Your task to perform on an android device: check android version Image 0: 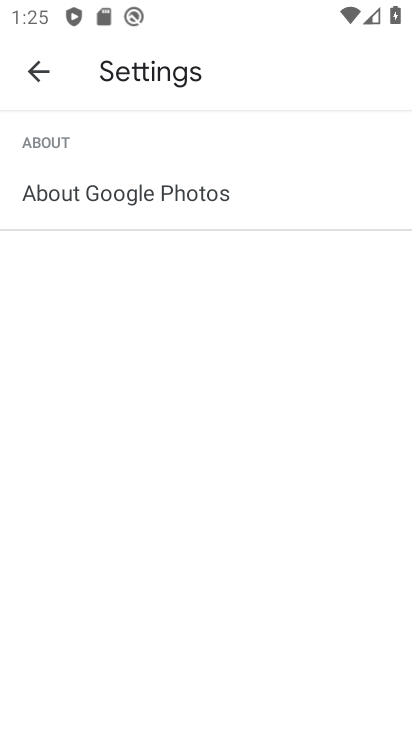
Step 0: press home button
Your task to perform on an android device: check android version Image 1: 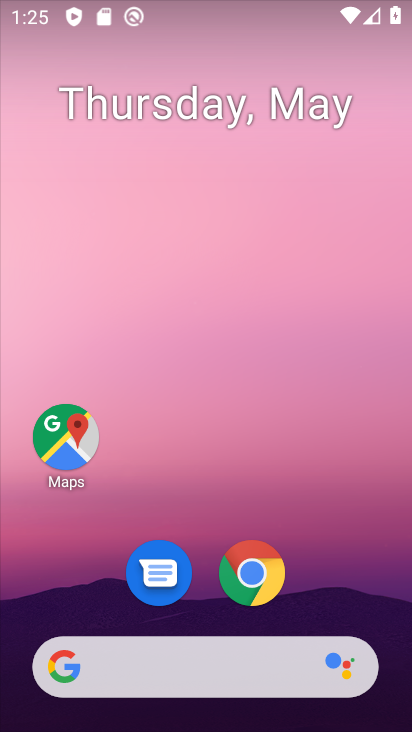
Step 1: drag from (387, 602) to (309, 7)
Your task to perform on an android device: check android version Image 2: 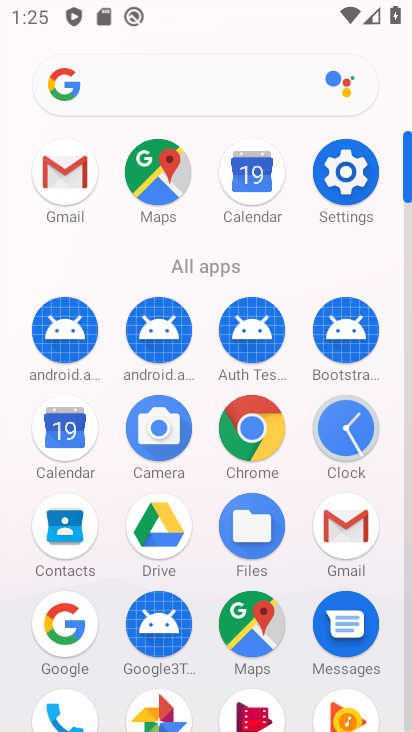
Step 2: click (317, 177)
Your task to perform on an android device: check android version Image 3: 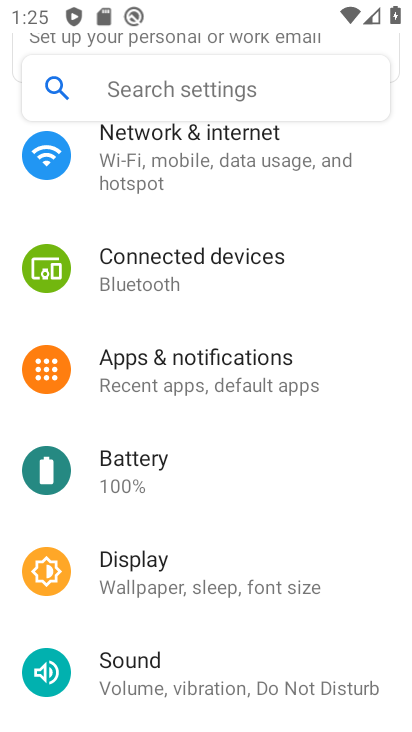
Step 3: drag from (266, 563) to (283, 177)
Your task to perform on an android device: check android version Image 4: 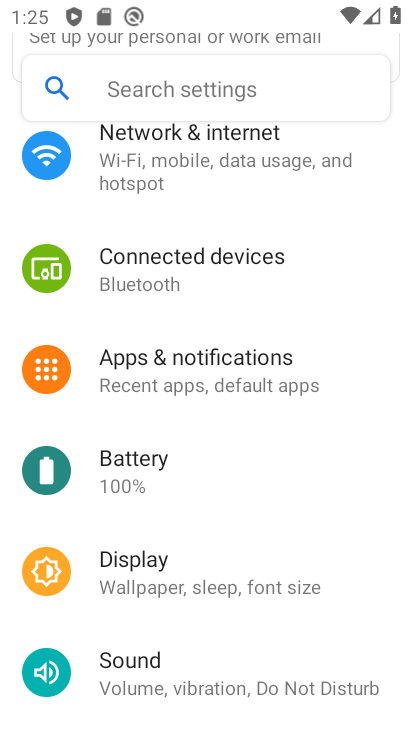
Step 4: drag from (232, 585) to (275, 237)
Your task to perform on an android device: check android version Image 5: 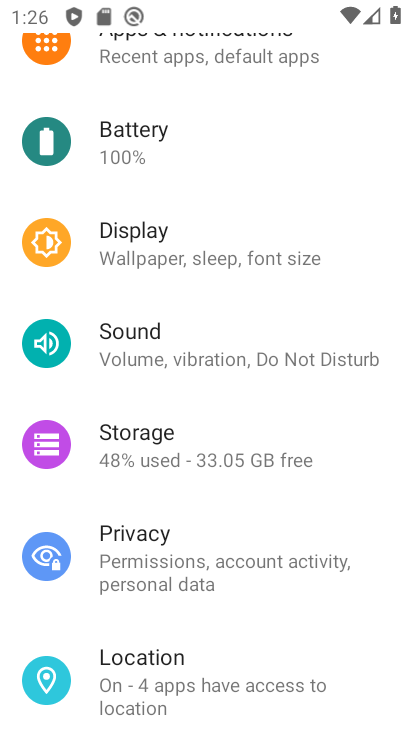
Step 5: drag from (274, 467) to (297, 258)
Your task to perform on an android device: check android version Image 6: 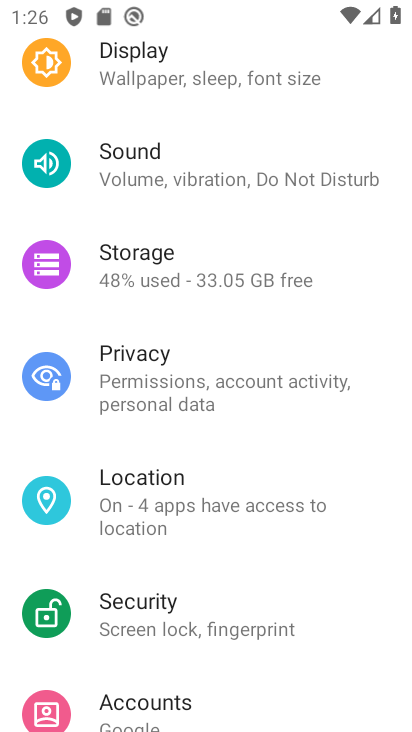
Step 6: drag from (282, 491) to (278, 273)
Your task to perform on an android device: check android version Image 7: 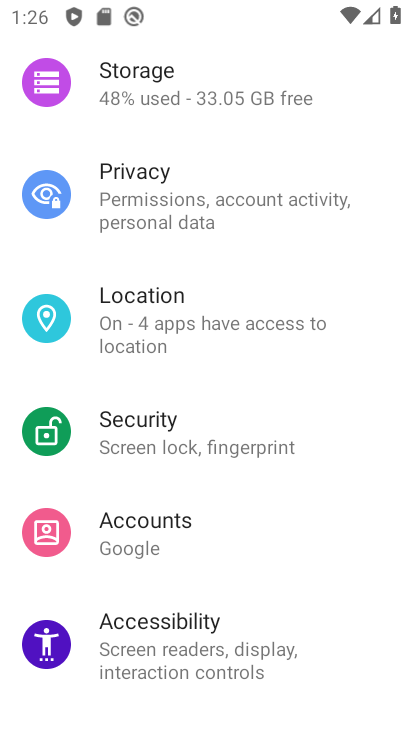
Step 7: drag from (294, 481) to (296, 279)
Your task to perform on an android device: check android version Image 8: 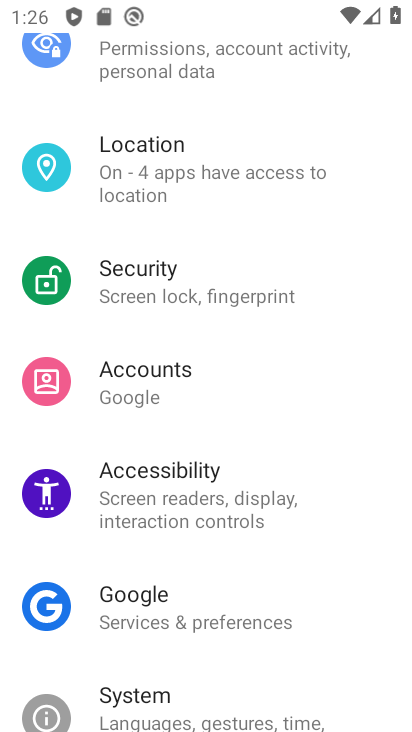
Step 8: drag from (285, 558) to (315, 223)
Your task to perform on an android device: check android version Image 9: 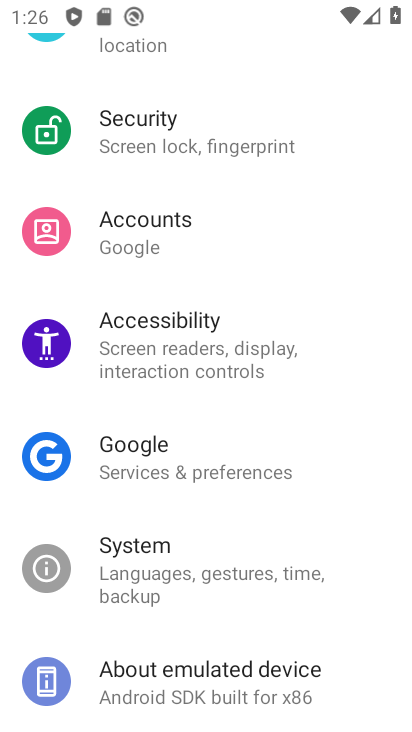
Step 9: click (270, 671)
Your task to perform on an android device: check android version Image 10: 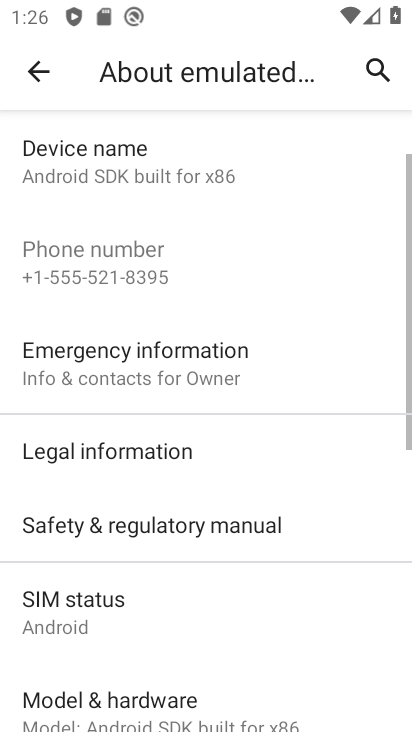
Step 10: drag from (268, 547) to (325, 381)
Your task to perform on an android device: check android version Image 11: 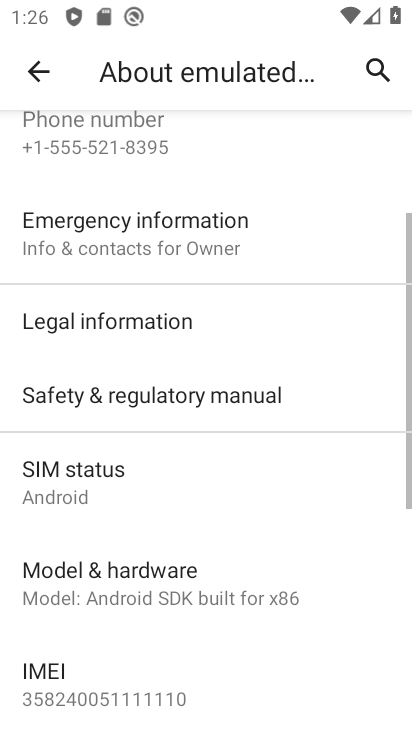
Step 11: drag from (253, 608) to (411, 295)
Your task to perform on an android device: check android version Image 12: 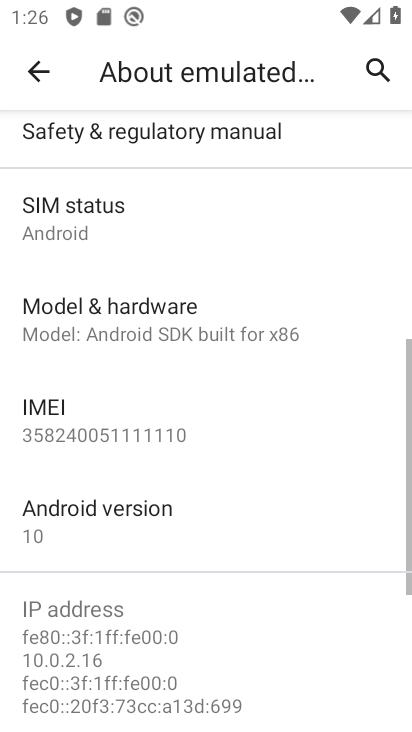
Step 12: click (70, 525)
Your task to perform on an android device: check android version Image 13: 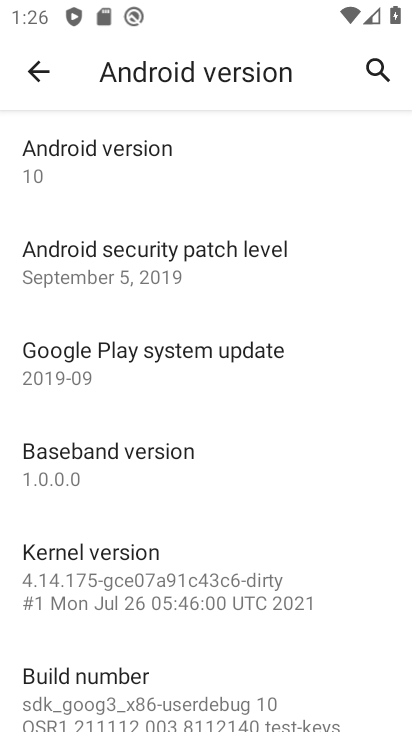
Step 13: click (244, 173)
Your task to perform on an android device: check android version Image 14: 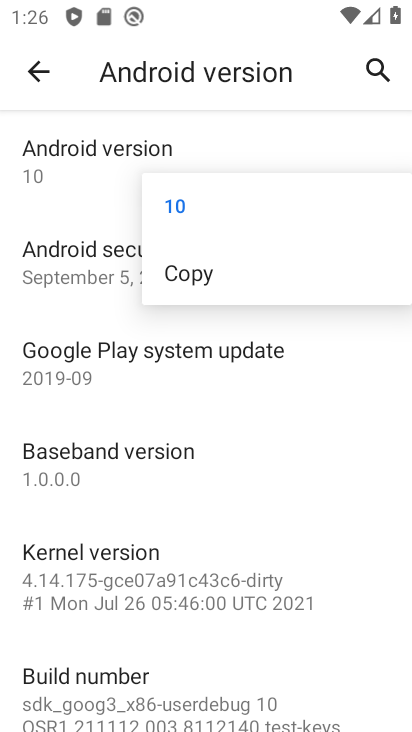
Step 14: click (82, 209)
Your task to perform on an android device: check android version Image 15: 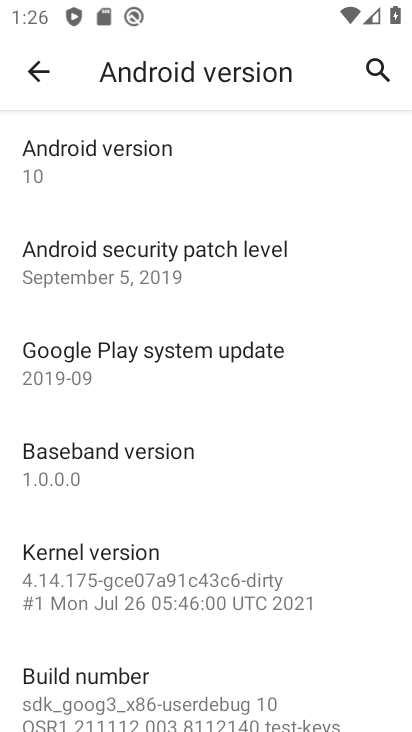
Step 15: task complete